Your task to perform on an android device: change text size in settings app Image 0: 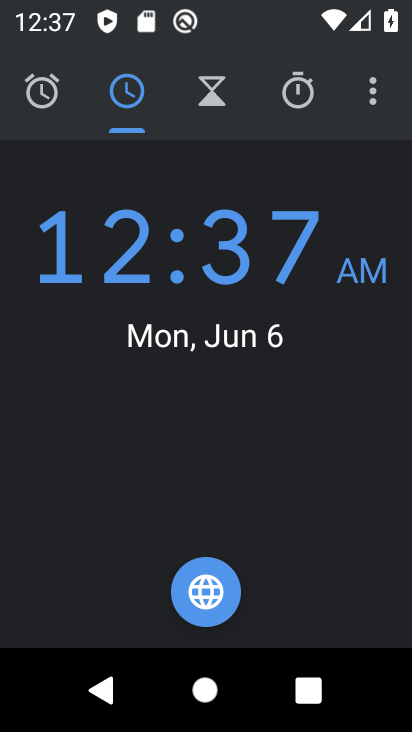
Step 0: press home button
Your task to perform on an android device: change text size in settings app Image 1: 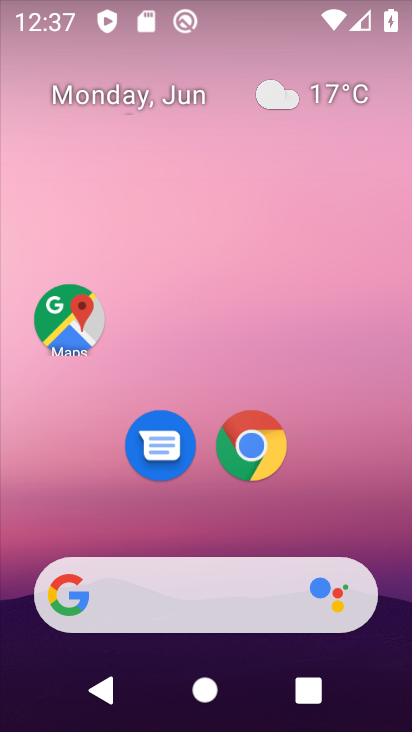
Step 1: drag from (230, 497) to (271, 20)
Your task to perform on an android device: change text size in settings app Image 2: 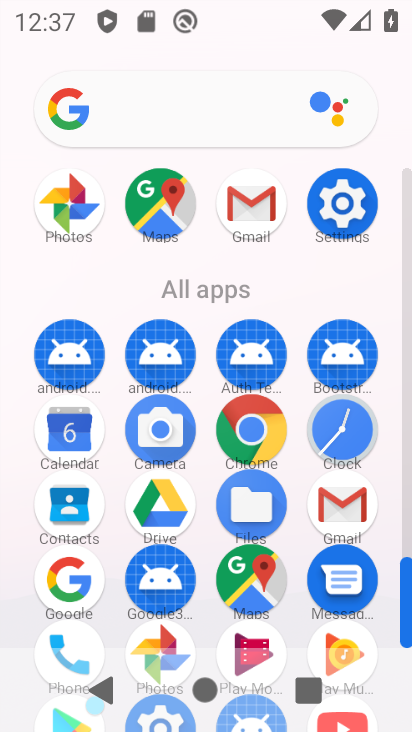
Step 2: click (344, 200)
Your task to perform on an android device: change text size in settings app Image 3: 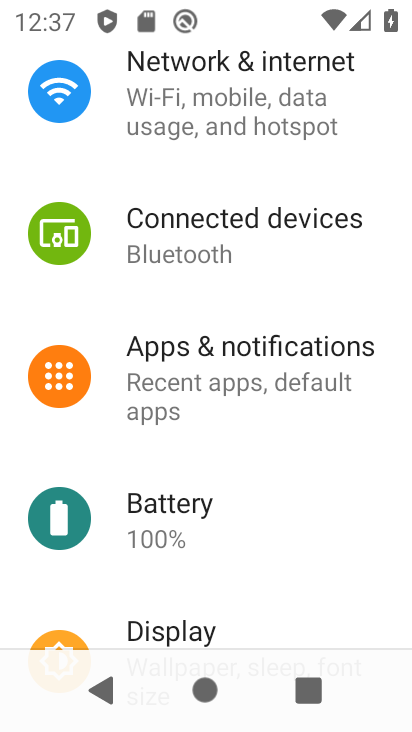
Step 3: drag from (205, 498) to (201, 249)
Your task to perform on an android device: change text size in settings app Image 4: 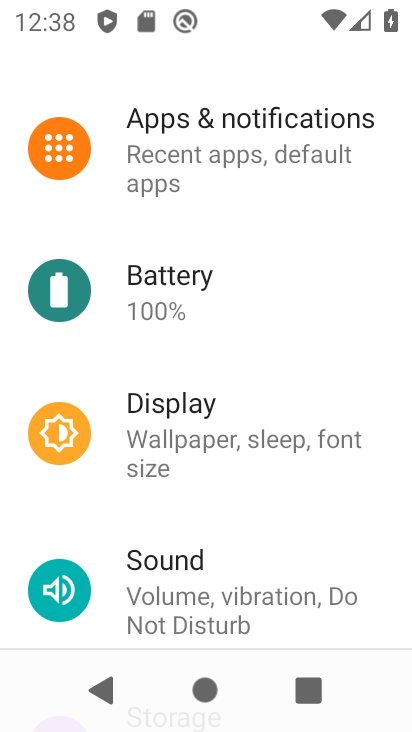
Step 4: click (229, 449)
Your task to perform on an android device: change text size in settings app Image 5: 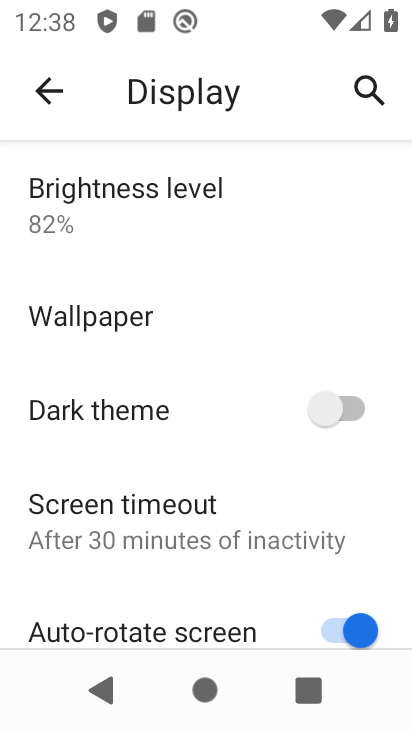
Step 5: drag from (153, 563) to (158, 155)
Your task to perform on an android device: change text size in settings app Image 6: 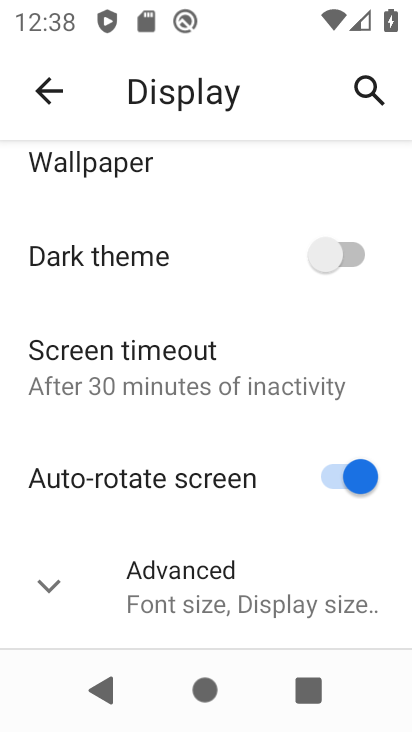
Step 6: click (141, 590)
Your task to perform on an android device: change text size in settings app Image 7: 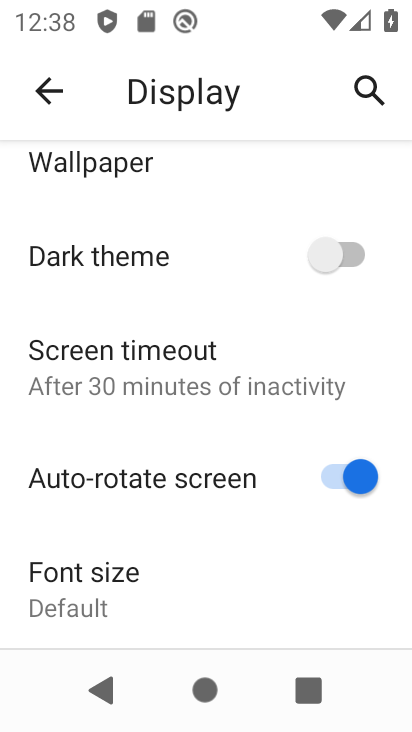
Step 7: click (132, 587)
Your task to perform on an android device: change text size in settings app Image 8: 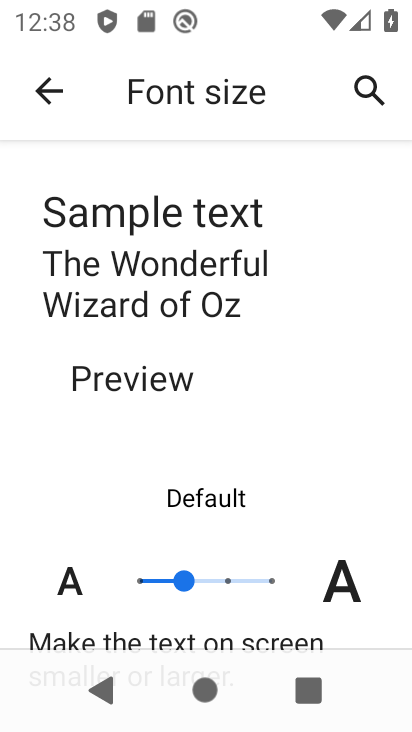
Step 8: click (232, 575)
Your task to perform on an android device: change text size in settings app Image 9: 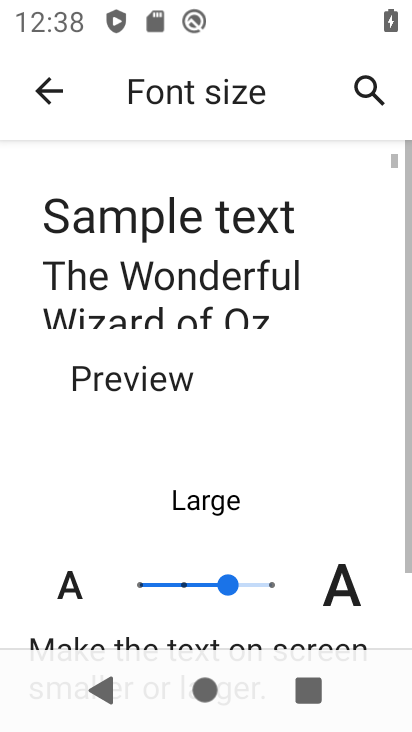
Step 9: task complete